Your task to perform on an android device: Open my contact list Image 0: 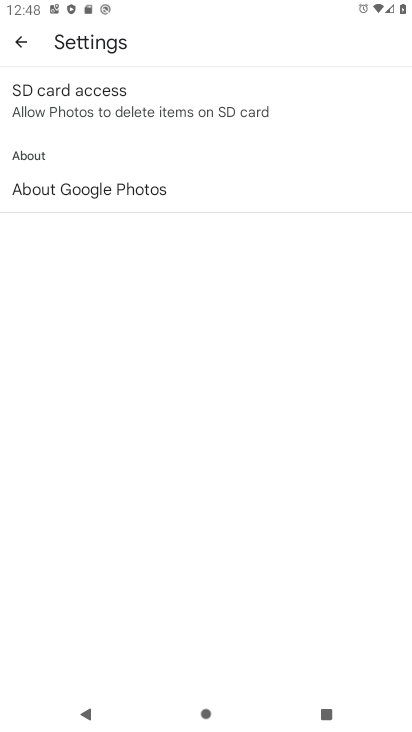
Step 0: press home button
Your task to perform on an android device: Open my contact list Image 1: 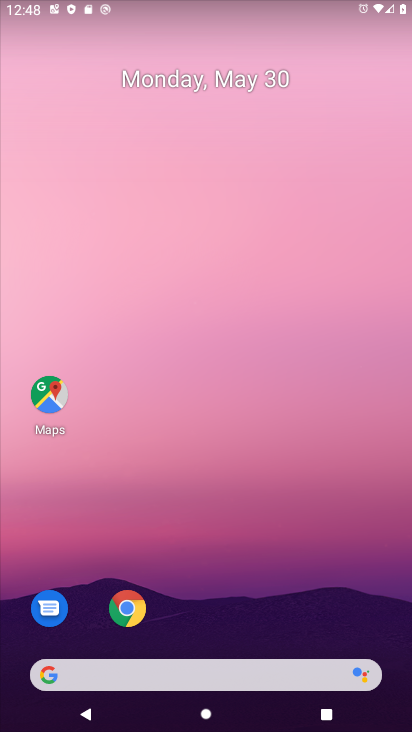
Step 1: drag from (209, 573) to (193, 137)
Your task to perform on an android device: Open my contact list Image 2: 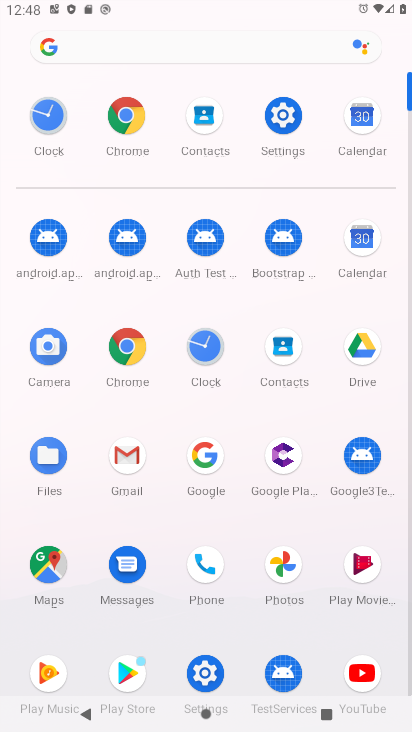
Step 2: click (203, 119)
Your task to perform on an android device: Open my contact list Image 3: 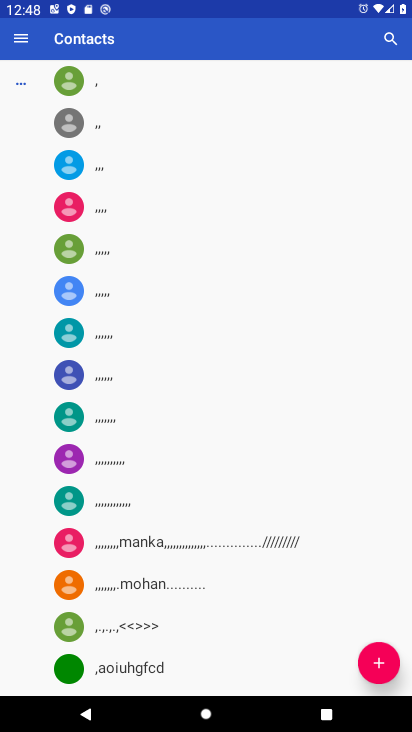
Step 3: task complete